Your task to perform on an android device: turn pop-ups off in chrome Image 0: 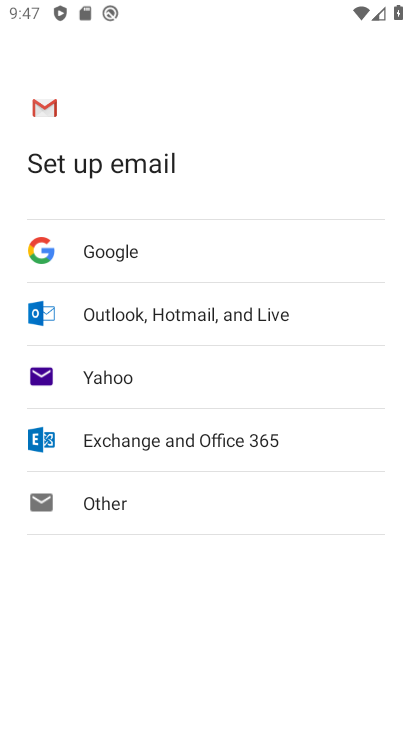
Step 0: press back button
Your task to perform on an android device: turn pop-ups off in chrome Image 1: 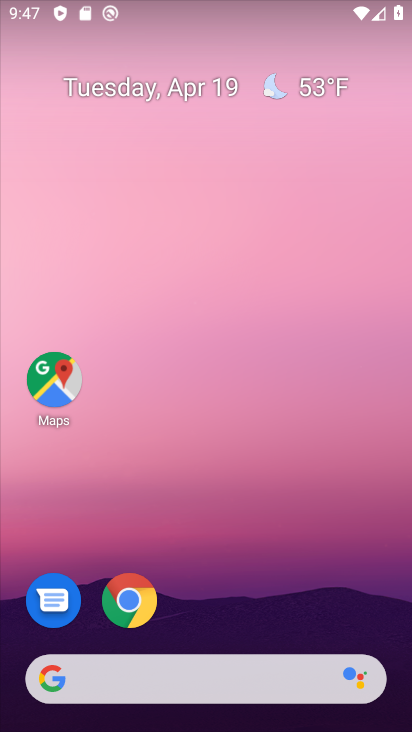
Step 1: click (113, 609)
Your task to perform on an android device: turn pop-ups off in chrome Image 2: 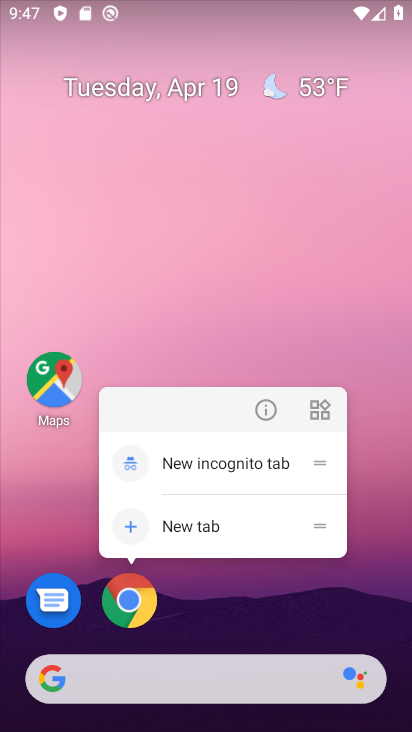
Step 2: click (145, 598)
Your task to perform on an android device: turn pop-ups off in chrome Image 3: 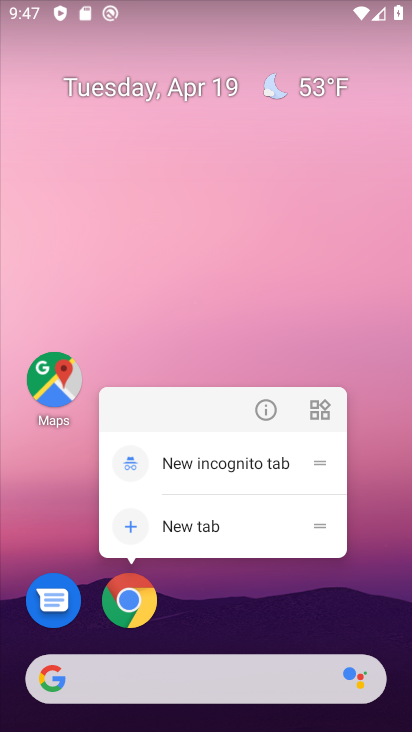
Step 3: click (134, 611)
Your task to perform on an android device: turn pop-ups off in chrome Image 4: 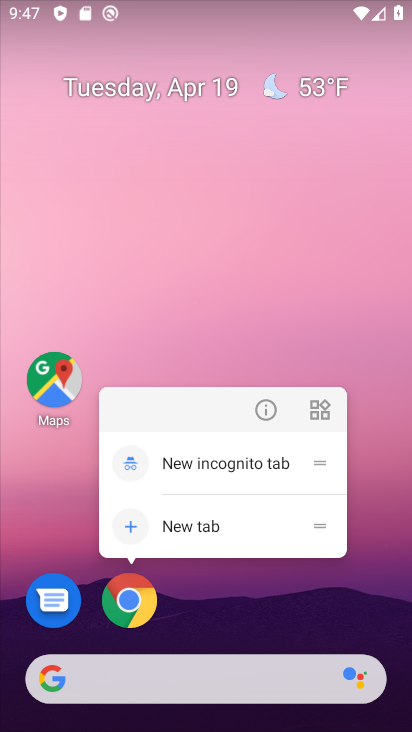
Step 4: click (143, 581)
Your task to perform on an android device: turn pop-ups off in chrome Image 5: 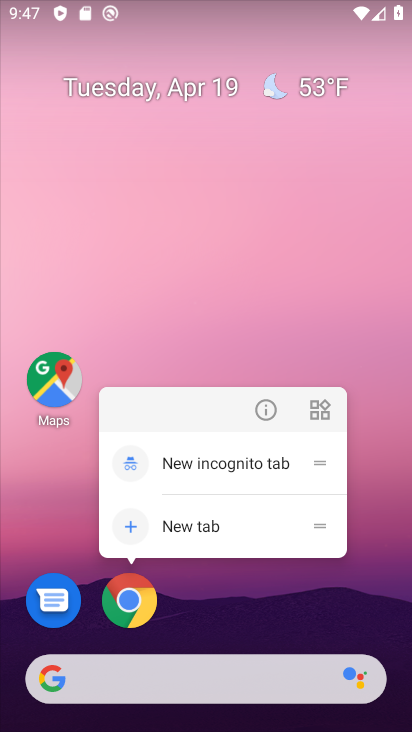
Step 5: click (131, 609)
Your task to perform on an android device: turn pop-ups off in chrome Image 6: 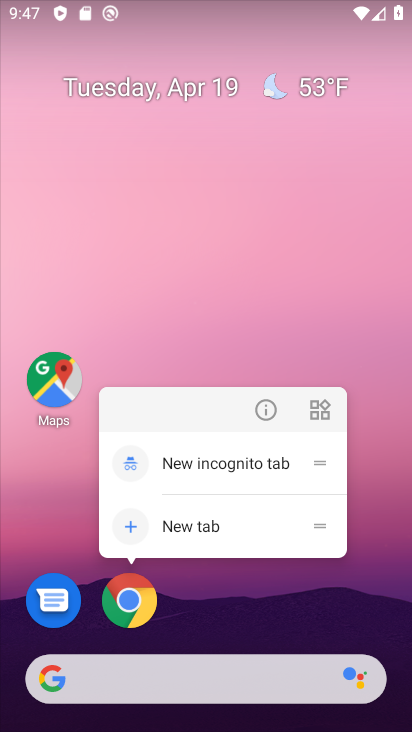
Step 6: click (130, 614)
Your task to perform on an android device: turn pop-ups off in chrome Image 7: 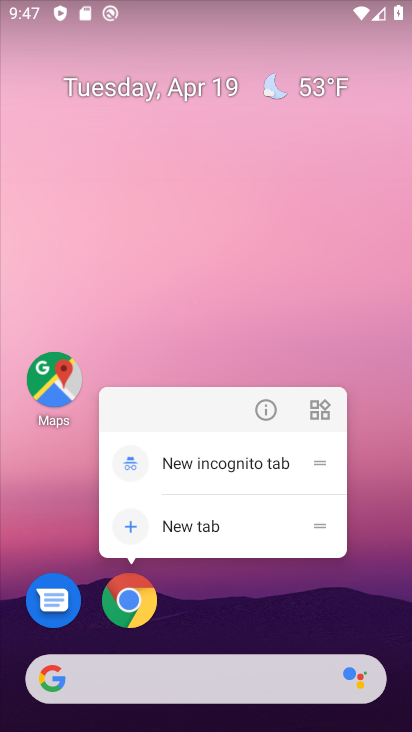
Step 7: click (130, 592)
Your task to perform on an android device: turn pop-ups off in chrome Image 8: 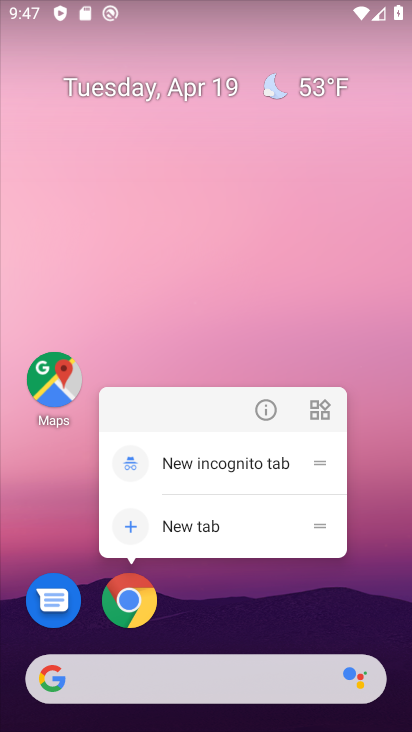
Step 8: click (127, 602)
Your task to perform on an android device: turn pop-ups off in chrome Image 9: 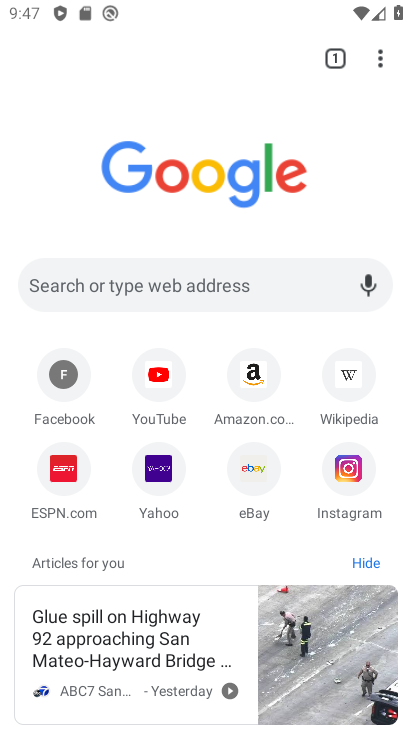
Step 9: click (379, 72)
Your task to perform on an android device: turn pop-ups off in chrome Image 10: 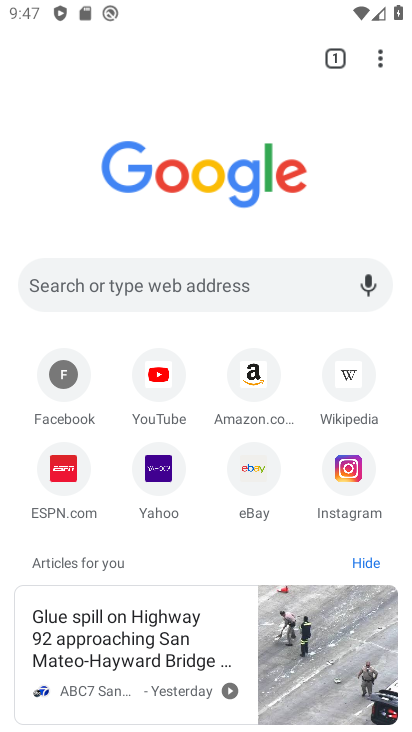
Step 10: drag from (389, 46) to (232, 486)
Your task to perform on an android device: turn pop-ups off in chrome Image 11: 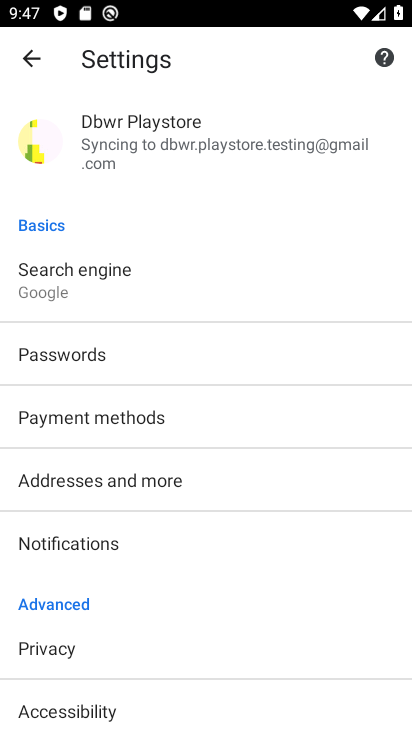
Step 11: drag from (166, 697) to (297, 241)
Your task to perform on an android device: turn pop-ups off in chrome Image 12: 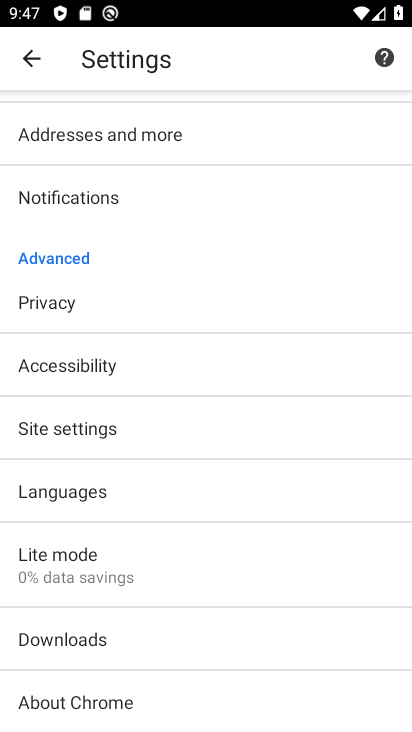
Step 12: click (184, 438)
Your task to perform on an android device: turn pop-ups off in chrome Image 13: 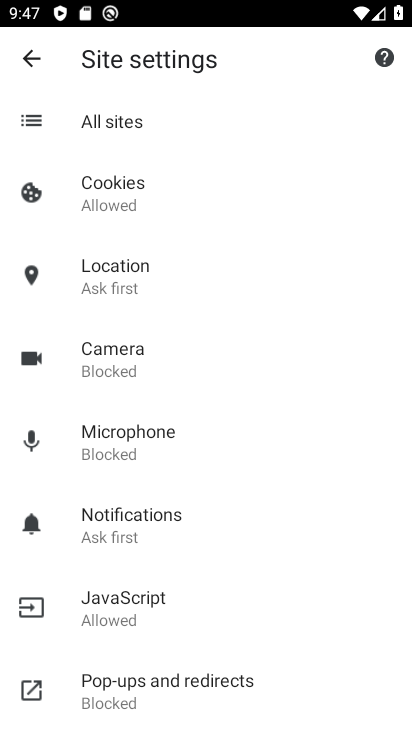
Step 13: click (214, 696)
Your task to perform on an android device: turn pop-ups off in chrome Image 14: 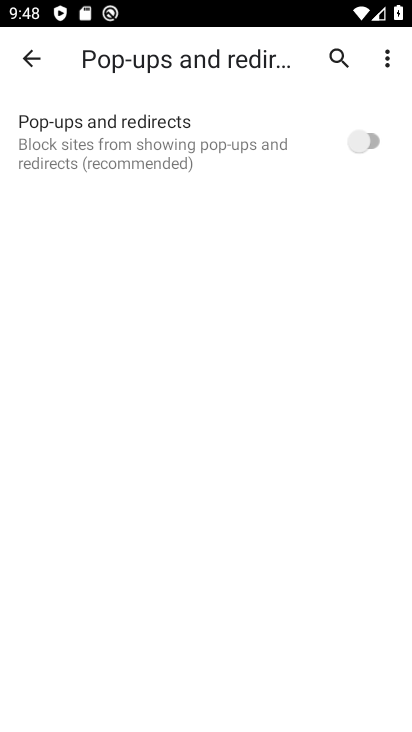
Step 14: task complete